Your task to perform on an android device: Go to display settings Image 0: 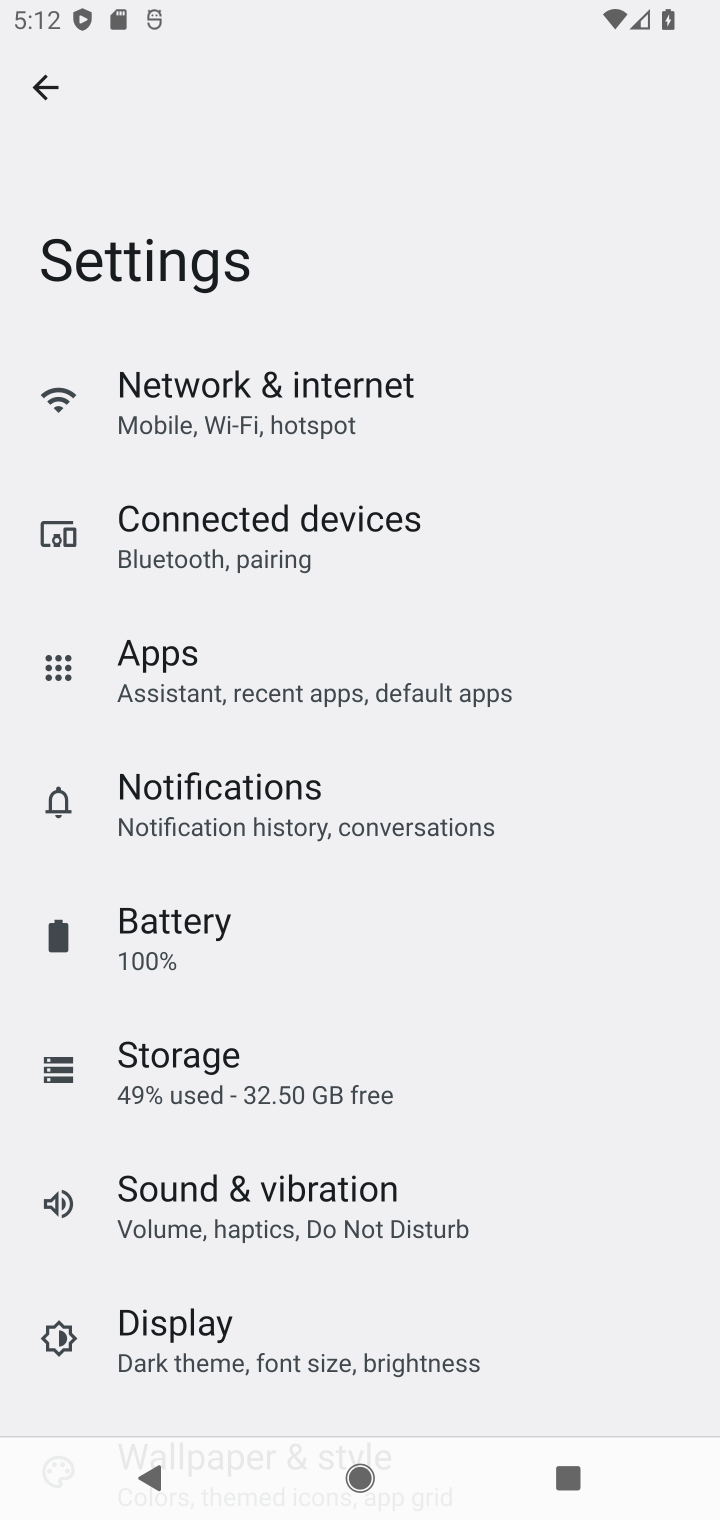
Step 0: click (209, 1327)
Your task to perform on an android device: Go to display settings Image 1: 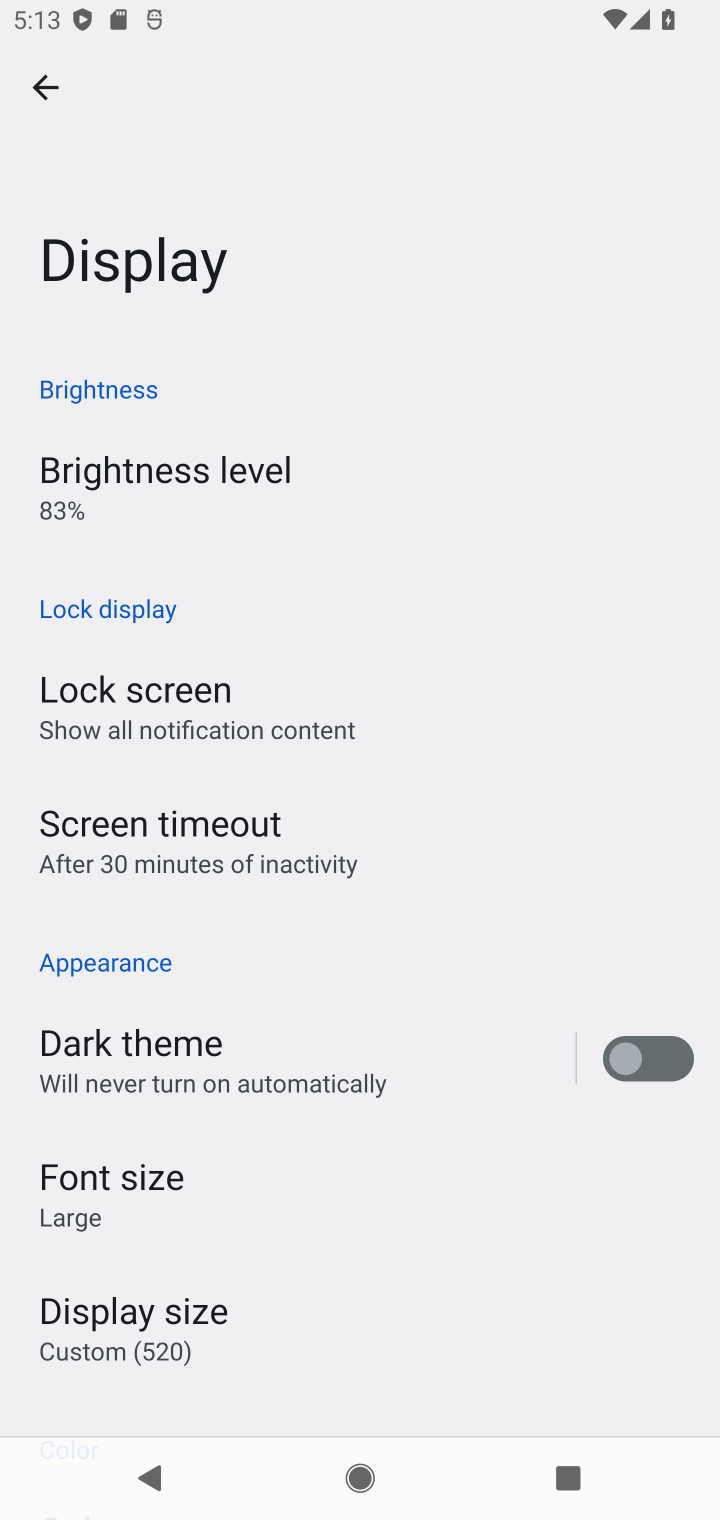
Step 1: task complete